Your task to perform on an android device: Open Youtube and go to "Your channel" Image 0: 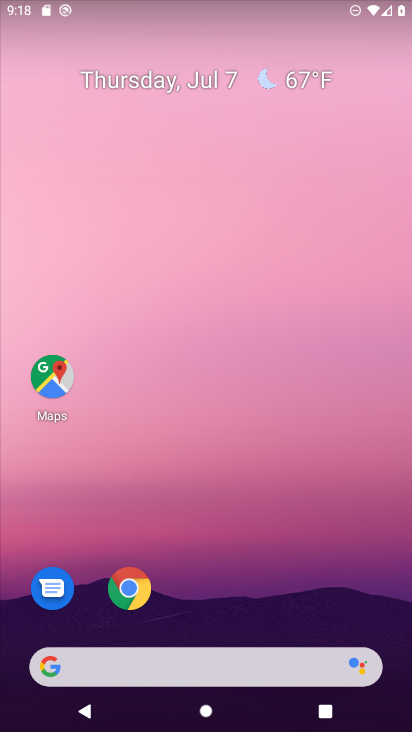
Step 0: drag from (235, 612) to (193, 164)
Your task to perform on an android device: Open Youtube and go to "Your channel" Image 1: 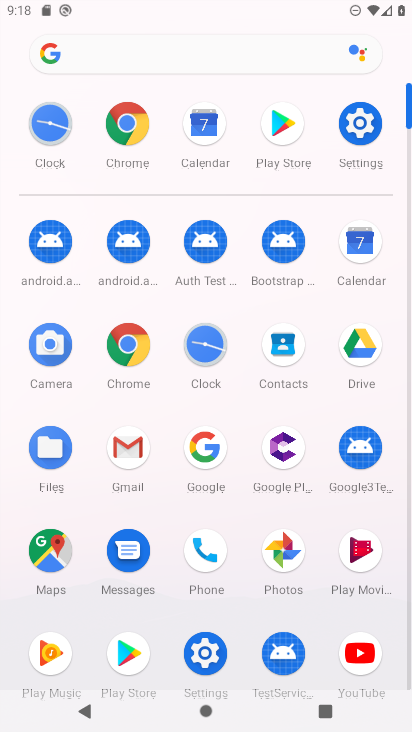
Step 1: click (361, 652)
Your task to perform on an android device: Open Youtube and go to "Your channel" Image 2: 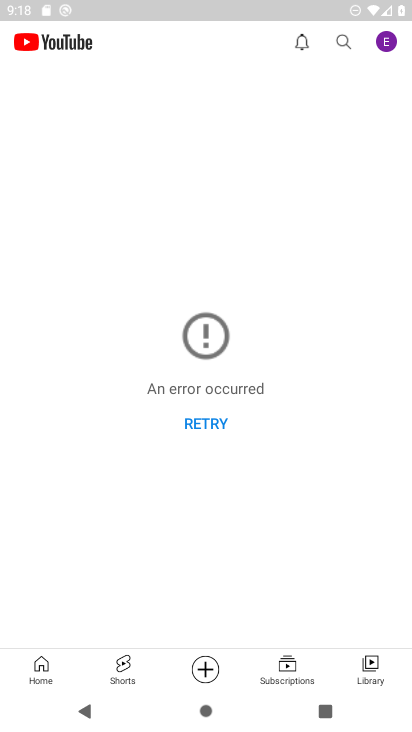
Step 2: click (208, 421)
Your task to perform on an android device: Open Youtube and go to "Your channel" Image 3: 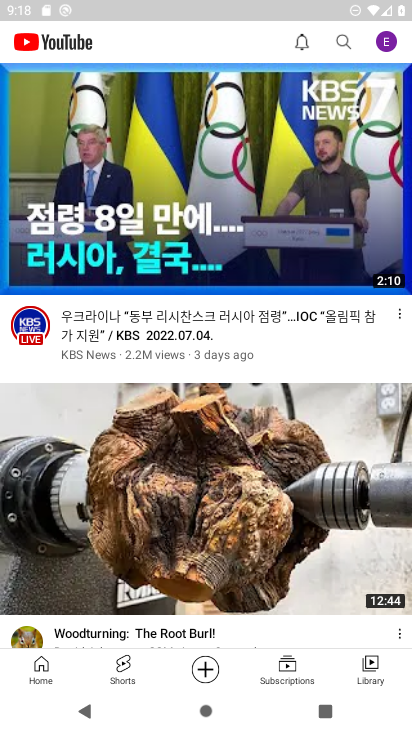
Step 3: click (388, 41)
Your task to perform on an android device: Open Youtube and go to "Your channel" Image 4: 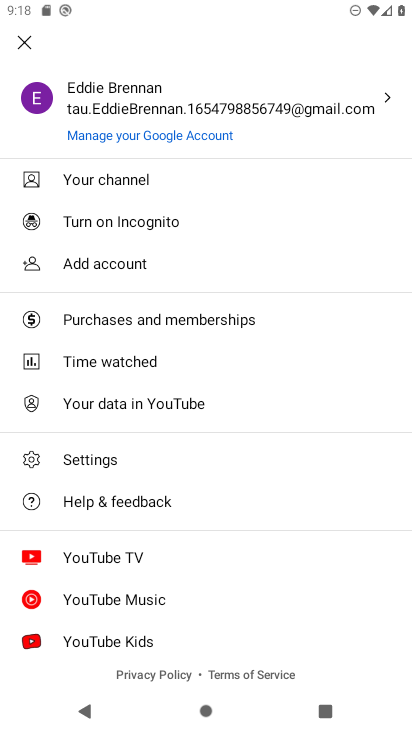
Step 4: click (120, 178)
Your task to perform on an android device: Open Youtube and go to "Your channel" Image 5: 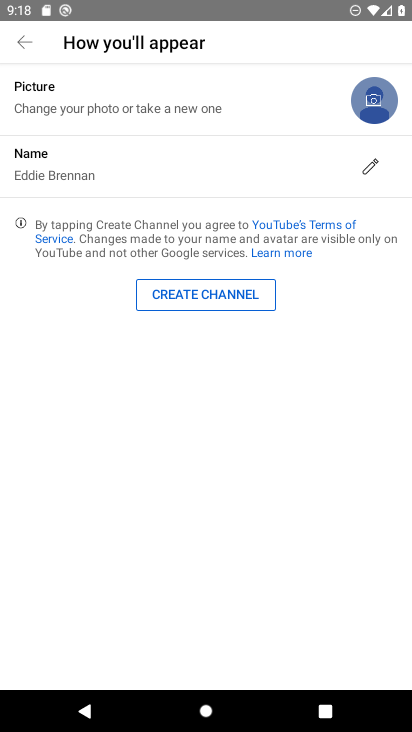
Step 5: task complete